Your task to perform on an android device: turn on improve location accuracy Image 0: 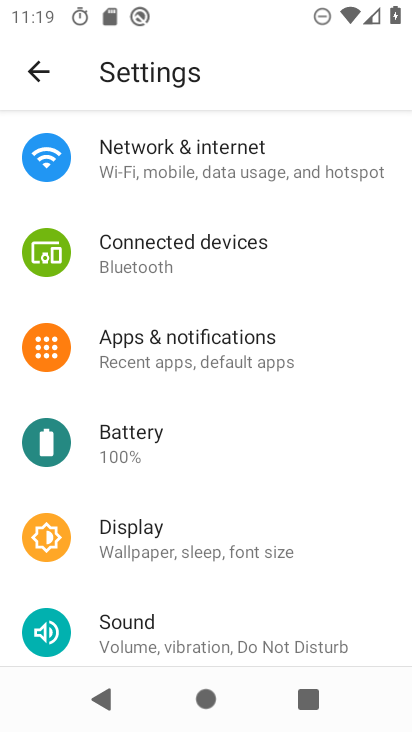
Step 0: drag from (240, 559) to (226, 201)
Your task to perform on an android device: turn on improve location accuracy Image 1: 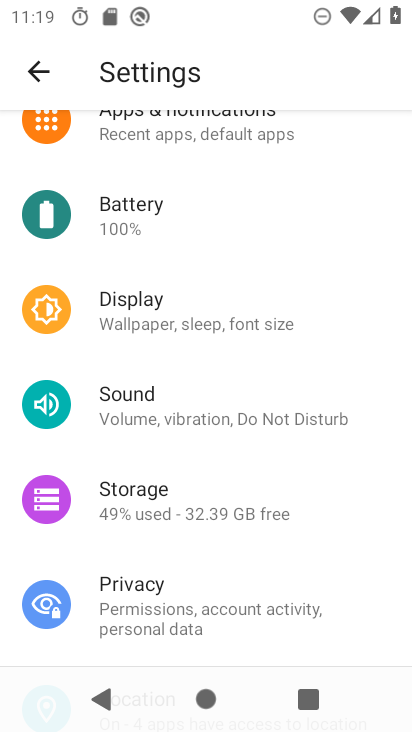
Step 1: drag from (253, 491) to (240, 188)
Your task to perform on an android device: turn on improve location accuracy Image 2: 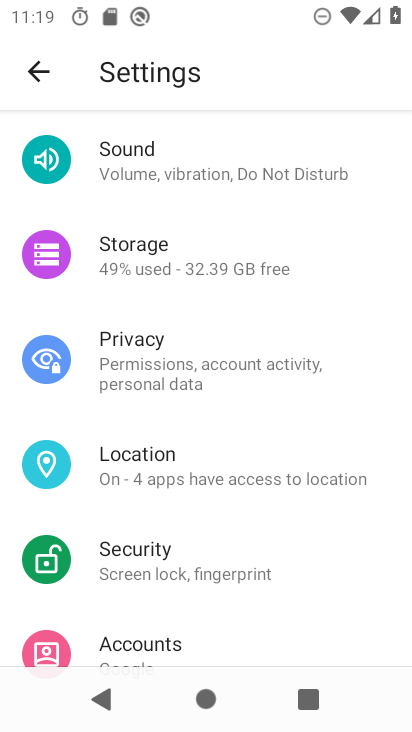
Step 2: click (137, 486)
Your task to perform on an android device: turn on improve location accuracy Image 3: 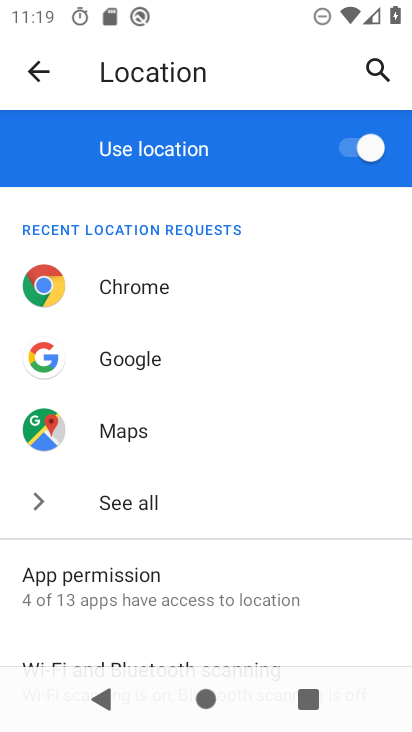
Step 3: drag from (266, 483) to (289, 181)
Your task to perform on an android device: turn on improve location accuracy Image 4: 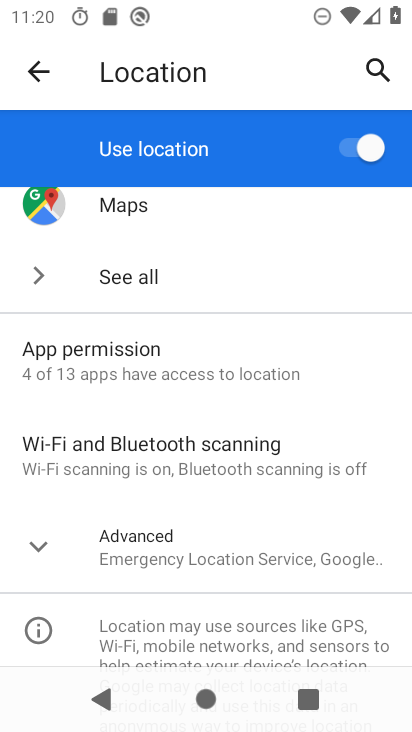
Step 4: click (216, 546)
Your task to perform on an android device: turn on improve location accuracy Image 5: 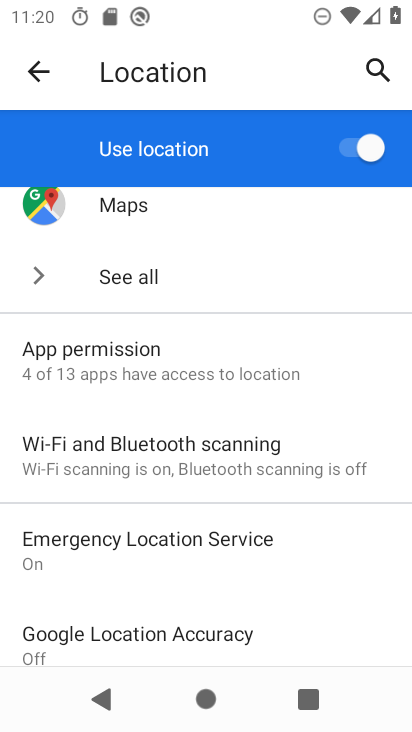
Step 5: click (166, 637)
Your task to perform on an android device: turn on improve location accuracy Image 6: 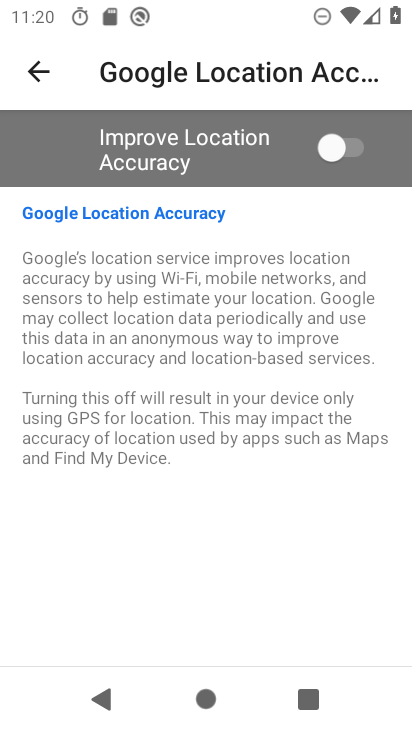
Step 6: click (353, 148)
Your task to perform on an android device: turn on improve location accuracy Image 7: 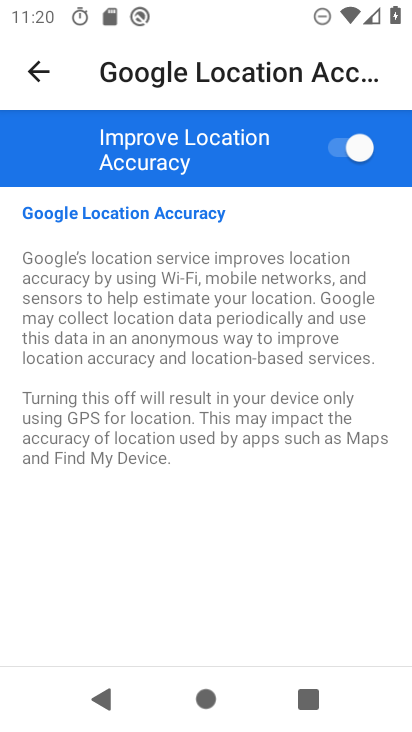
Step 7: task complete